Your task to perform on an android device: Open calendar and show me the third week of next month Image 0: 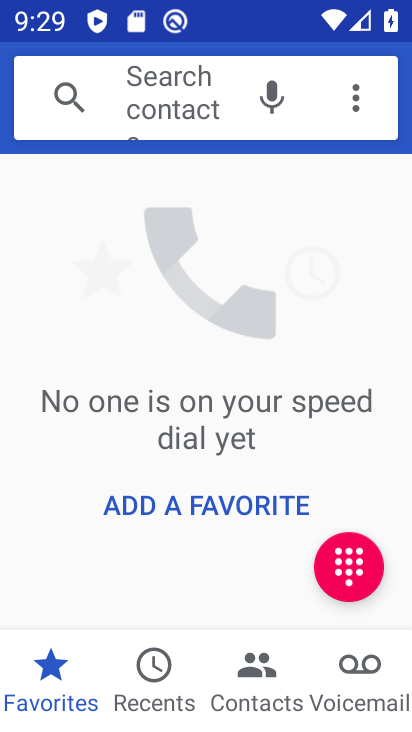
Step 0: press home button
Your task to perform on an android device: Open calendar and show me the third week of next month Image 1: 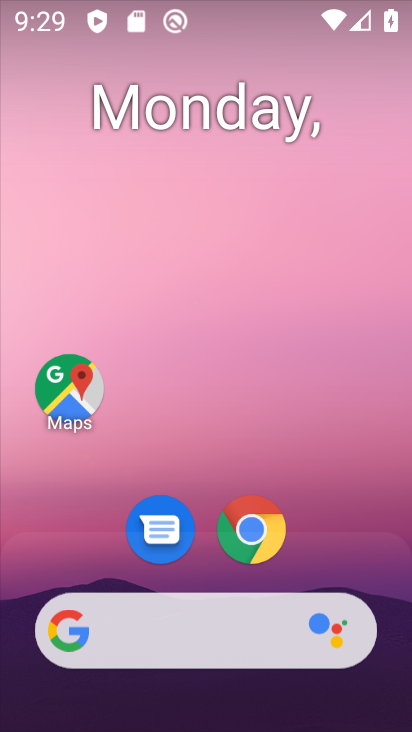
Step 1: drag from (302, 567) to (261, 36)
Your task to perform on an android device: Open calendar and show me the third week of next month Image 2: 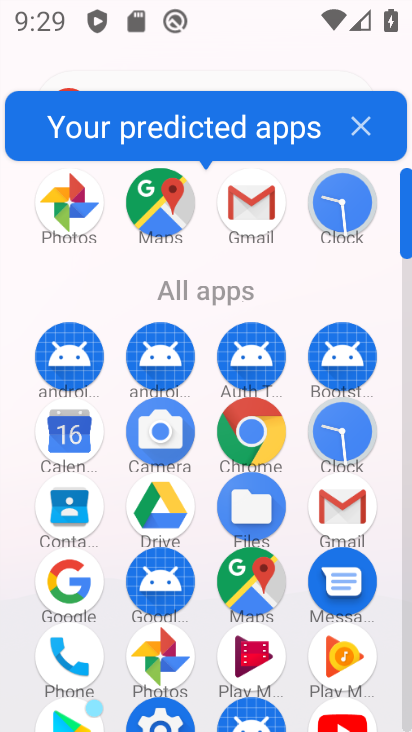
Step 2: drag from (194, 697) to (185, 489)
Your task to perform on an android device: Open calendar and show me the third week of next month Image 3: 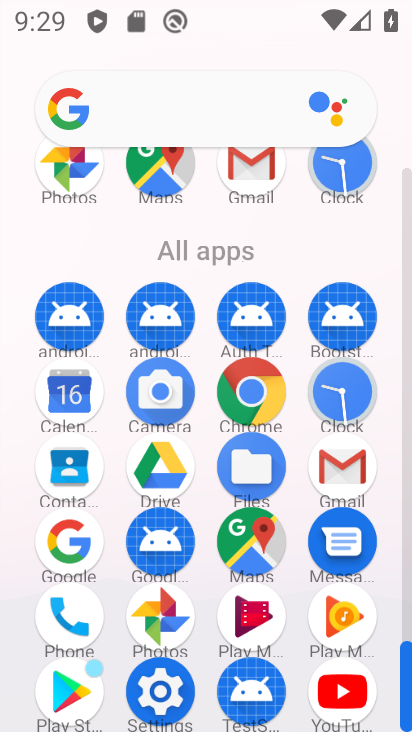
Step 3: click (86, 400)
Your task to perform on an android device: Open calendar and show me the third week of next month Image 4: 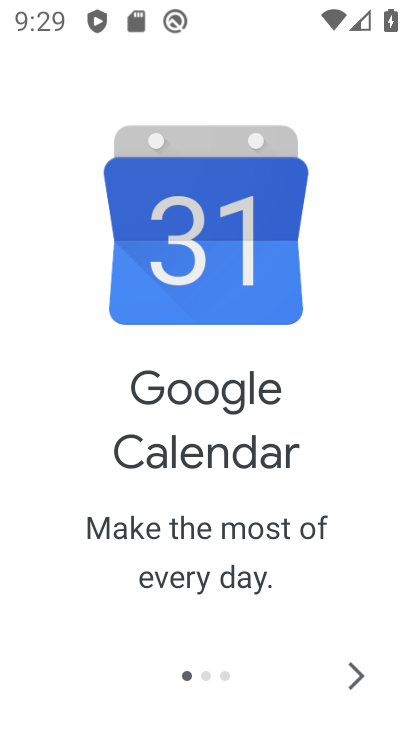
Step 4: click (351, 666)
Your task to perform on an android device: Open calendar and show me the third week of next month Image 5: 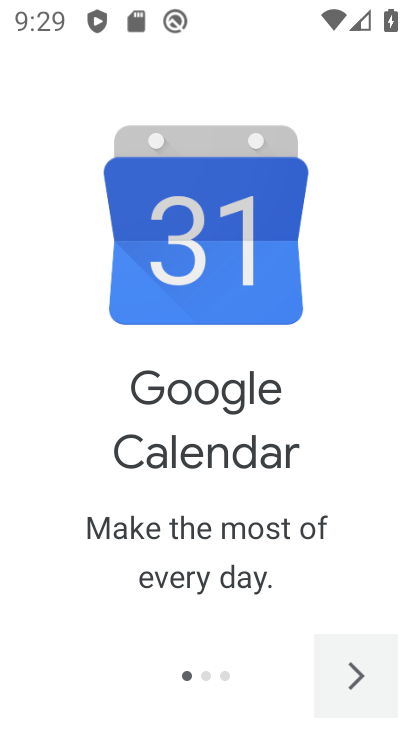
Step 5: click (354, 668)
Your task to perform on an android device: Open calendar and show me the third week of next month Image 6: 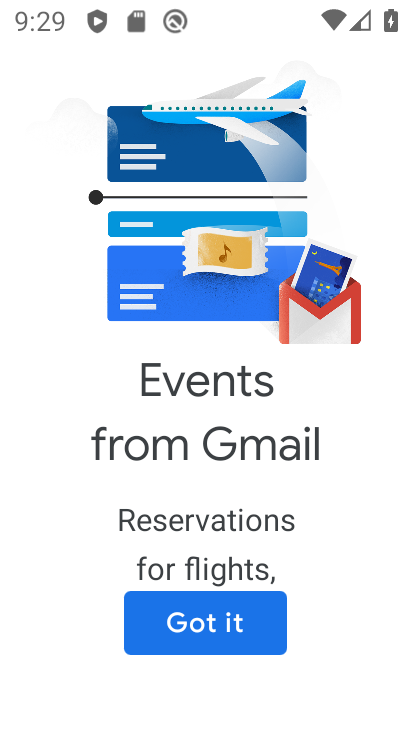
Step 6: click (238, 617)
Your task to perform on an android device: Open calendar and show me the third week of next month Image 7: 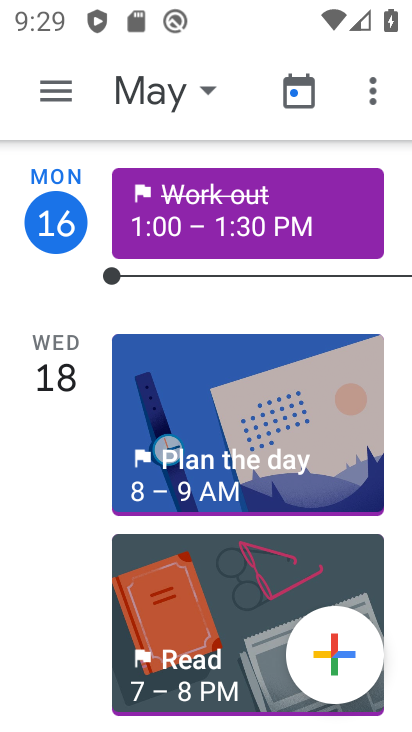
Step 7: click (69, 91)
Your task to perform on an android device: Open calendar and show me the third week of next month Image 8: 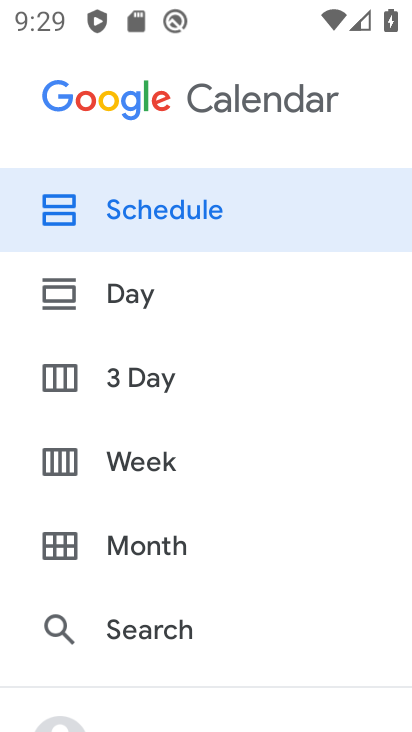
Step 8: click (163, 457)
Your task to perform on an android device: Open calendar and show me the third week of next month Image 9: 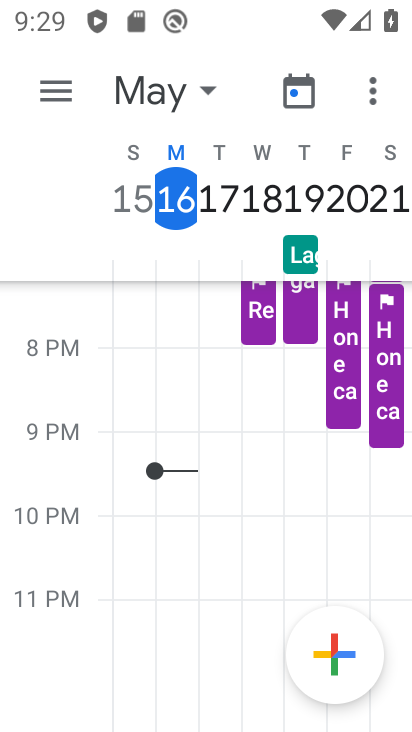
Step 9: click (143, 92)
Your task to perform on an android device: Open calendar and show me the third week of next month Image 10: 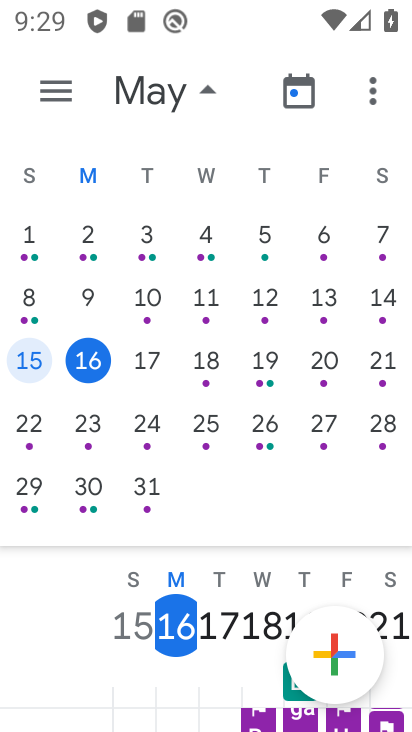
Step 10: drag from (300, 360) to (53, 299)
Your task to perform on an android device: Open calendar and show me the third week of next month Image 11: 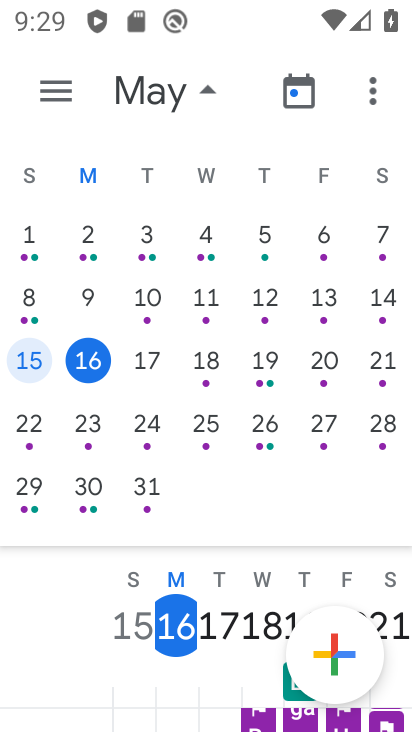
Step 11: drag from (310, 304) to (20, 289)
Your task to perform on an android device: Open calendar and show me the third week of next month Image 12: 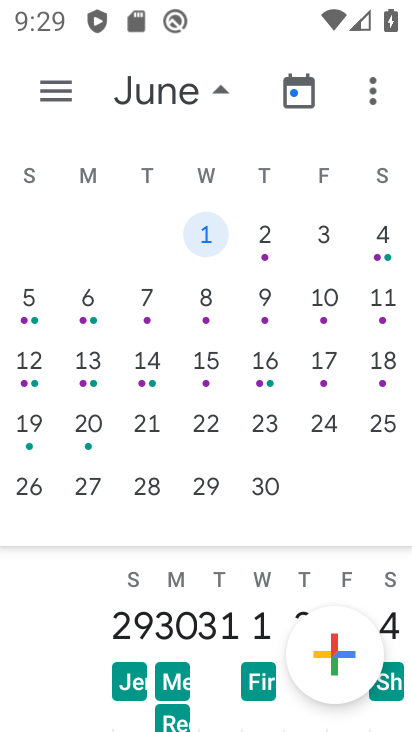
Step 12: click (39, 372)
Your task to perform on an android device: Open calendar and show me the third week of next month Image 13: 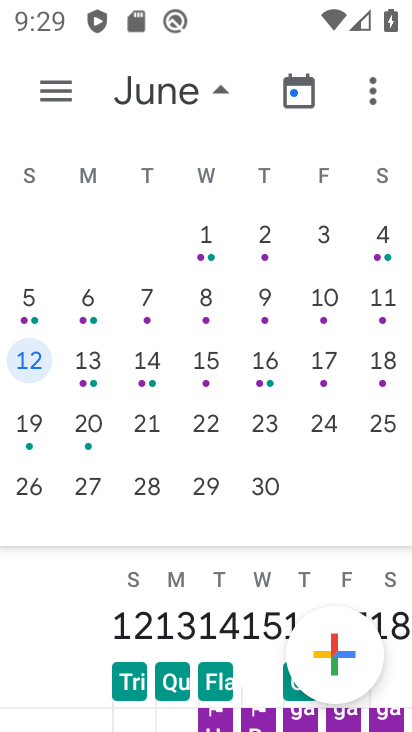
Step 13: task complete